Your task to perform on an android device: Open Wikipedia Image 0: 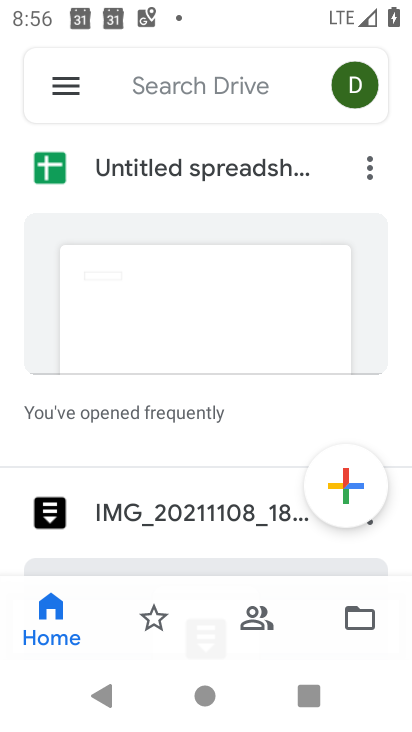
Step 0: press home button
Your task to perform on an android device: Open Wikipedia Image 1: 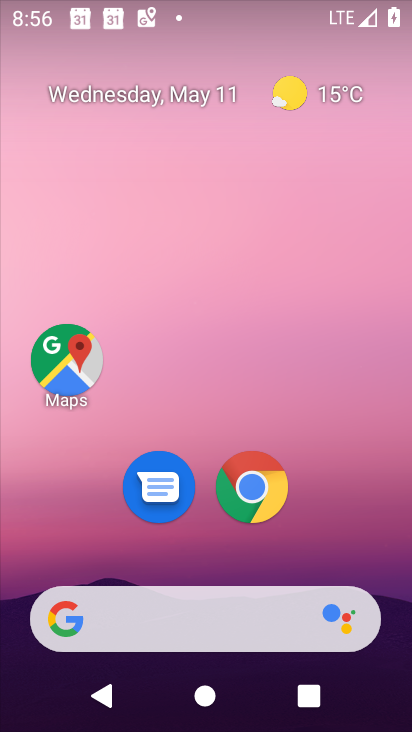
Step 1: drag from (169, 600) to (207, 142)
Your task to perform on an android device: Open Wikipedia Image 2: 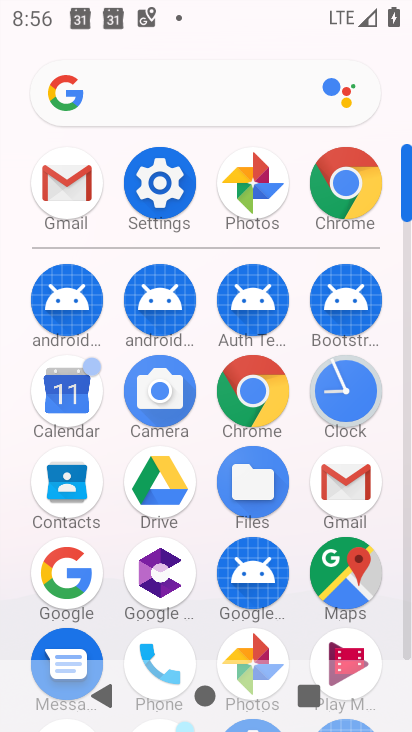
Step 2: click (339, 180)
Your task to perform on an android device: Open Wikipedia Image 3: 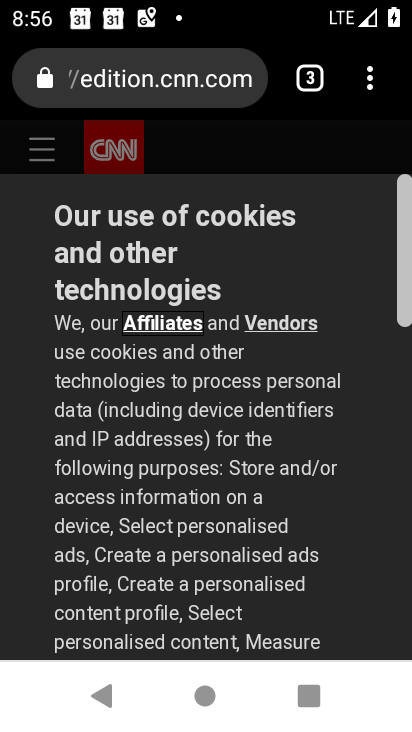
Step 3: click (174, 83)
Your task to perform on an android device: Open Wikipedia Image 4: 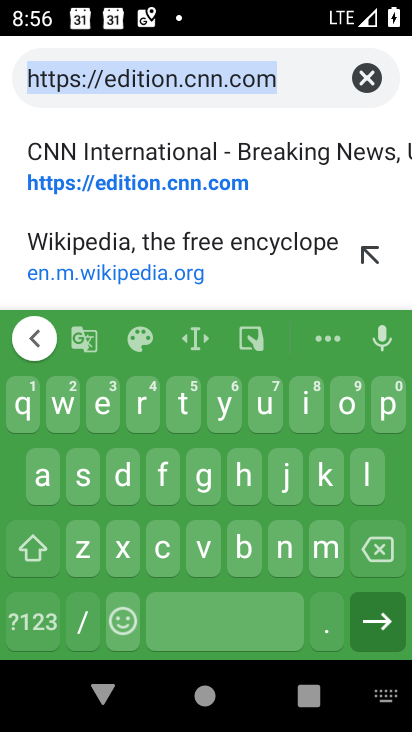
Step 4: click (120, 261)
Your task to perform on an android device: Open Wikipedia Image 5: 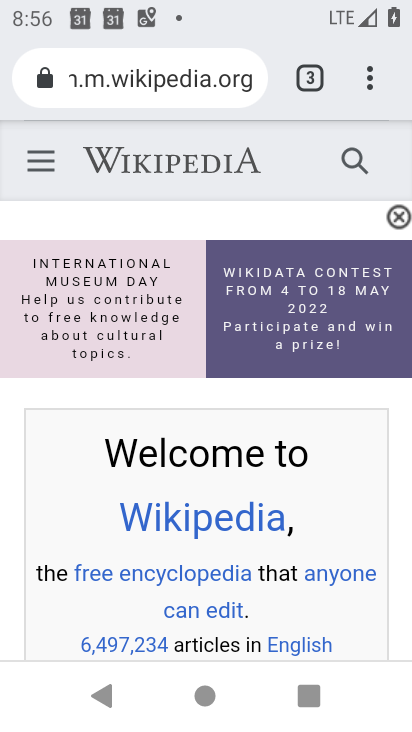
Step 5: task complete